Your task to perform on an android device: check android version Image 0: 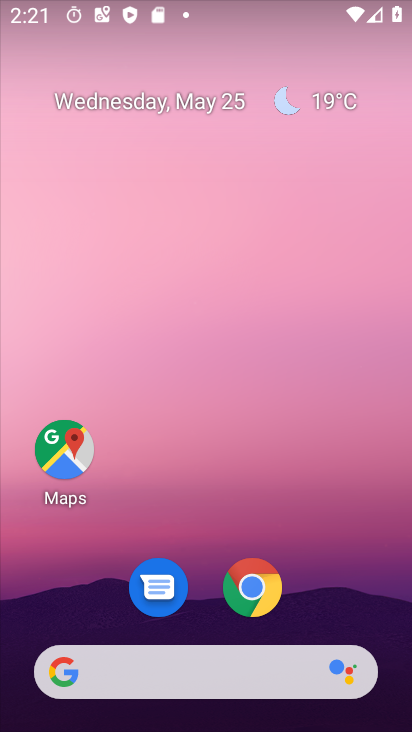
Step 0: drag from (201, 609) to (279, 71)
Your task to perform on an android device: check android version Image 1: 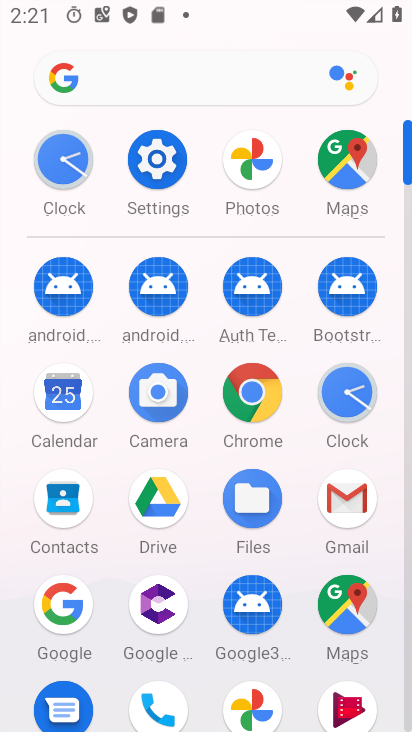
Step 1: click (162, 157)
Your task to perform on an android device: check android version Image 2: 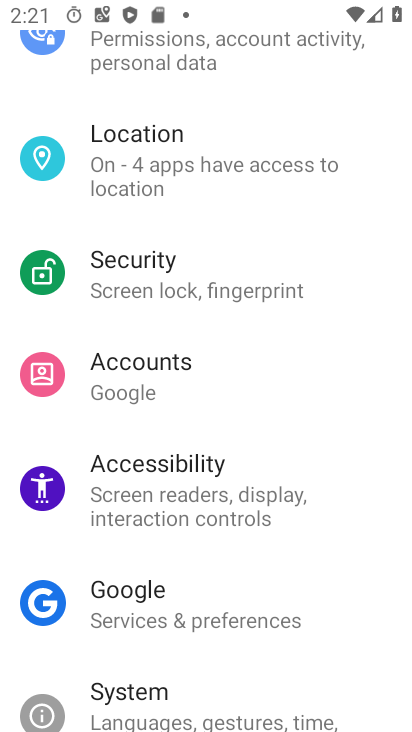
Step 2: drag from (278, 659) to (346, 50)
Your task to perform on an android device: check android version Image 3: 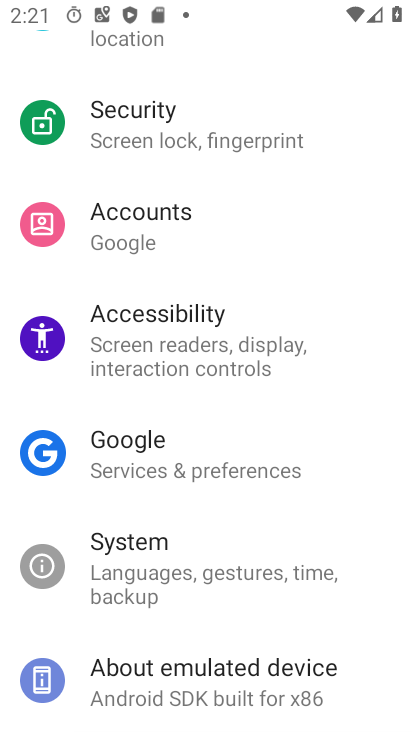
Step 3: click (165, 693)
Your task to perform on an android device: check android version Image 4: 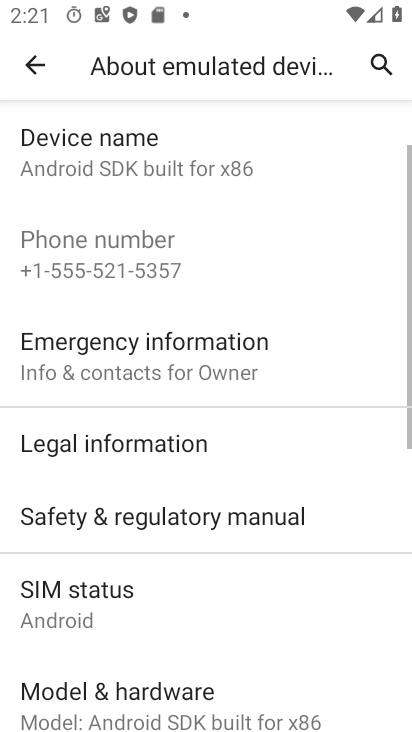
Step 4: drag from (228, 603) to (210, 81)
Your task to perform on an android device: check android version Image 5: 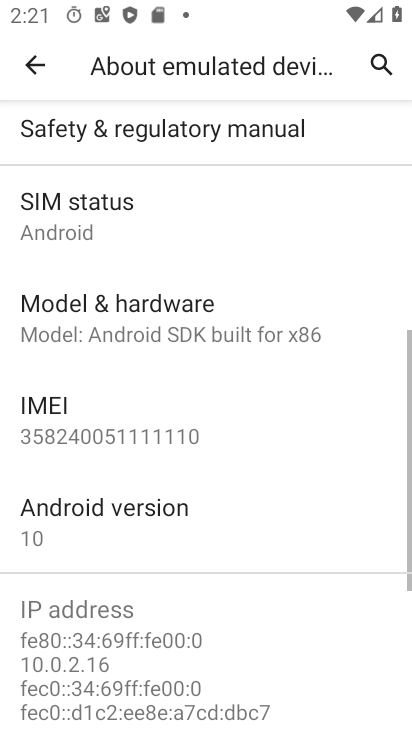
Step 5: click (135, 534)
Your task to perform on an android device: check android version Image 6: 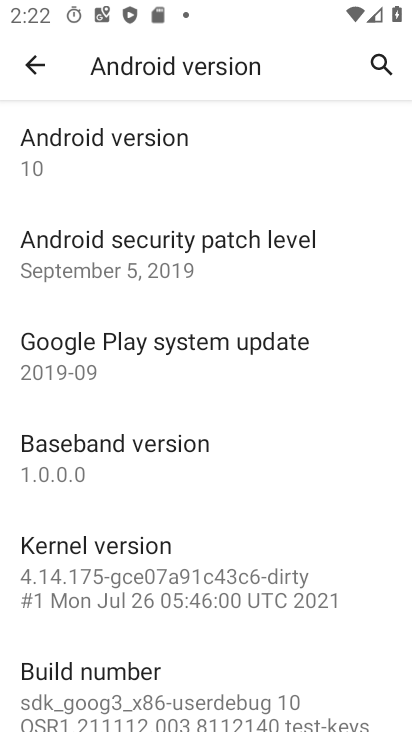
Step 6: task complete